Your task to perform on an android device: open device folders in google photos Image 0: 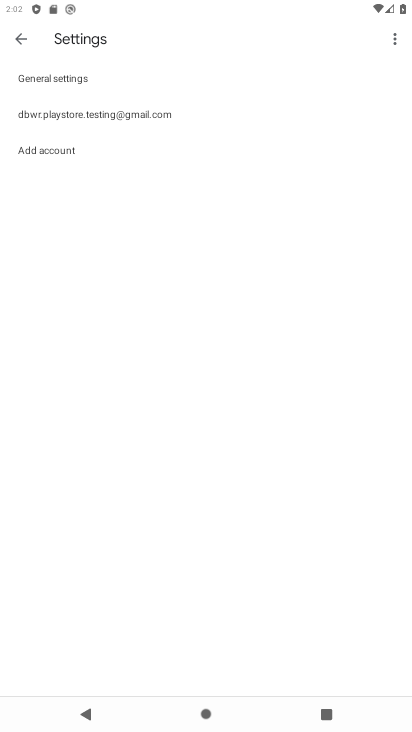
Step 0: press back button
Your task to perform on an android device: open device folders in google photos Image 1: 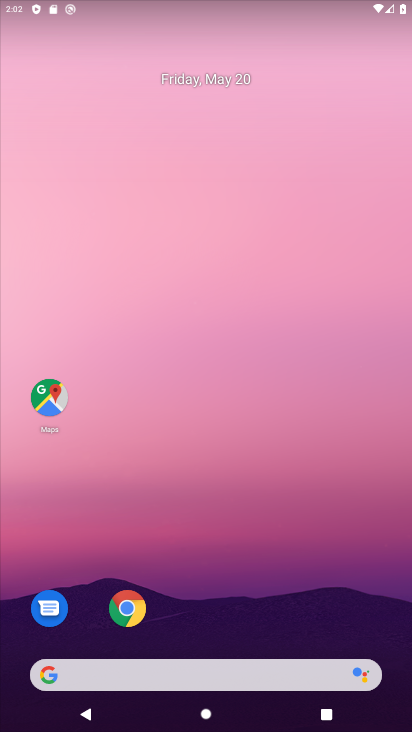
Step 1: drag from (235, 615) to (370, 53)
Your task to perform on an android device: open device folders in google photos Image 2: 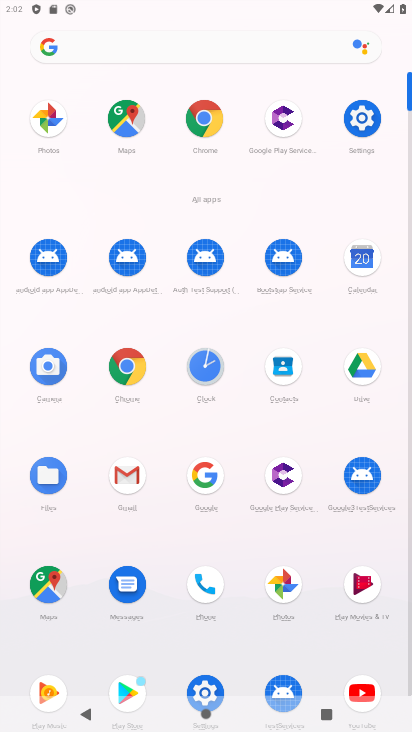
Step 2: click (284, 597)
Your task to perform on an android device: open device folders in google photos Image 3: 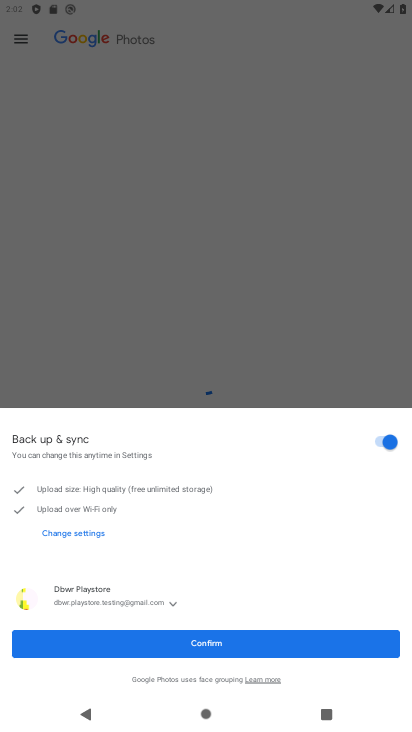
Step 3: click (197, 650)
Your task to perform on an android device: open device folders in google photos Image 4: 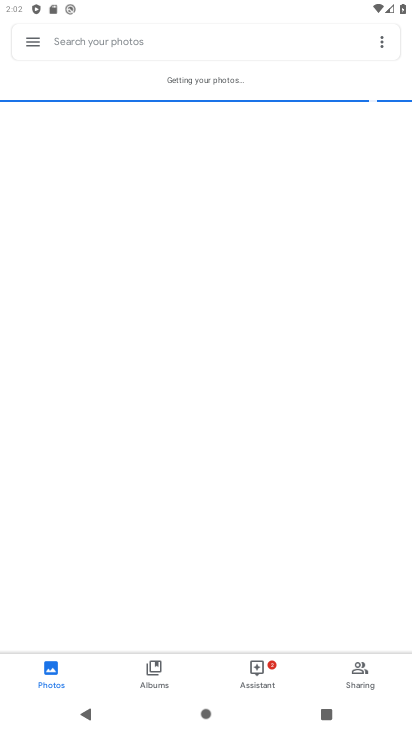
Step 4: click (31, 41)
Your task to perform on an android device: open device folders in google photos Image 5: 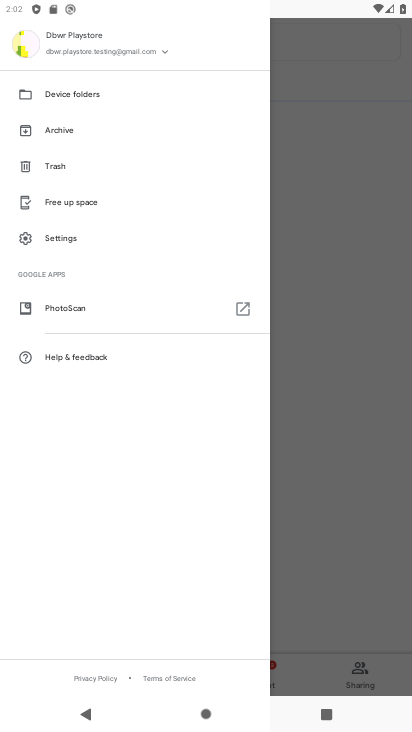
Step 5: click (76, 97)
Your task to perform on an android device: open device folders in google photos Image 6: 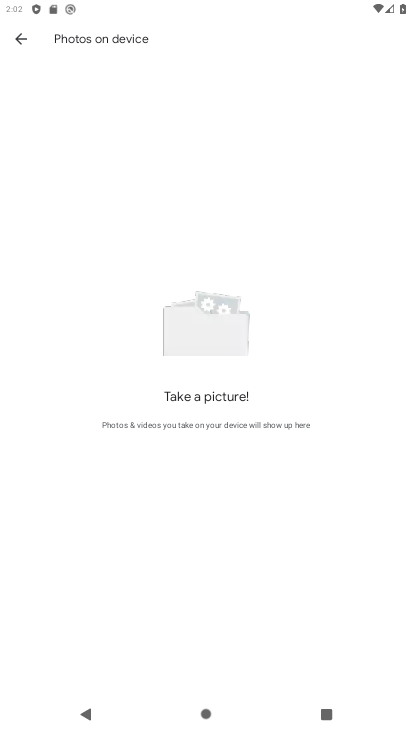
Step 6: task complete